Your task to perform on an android device: open a bookmark in the chrome app Image 0: 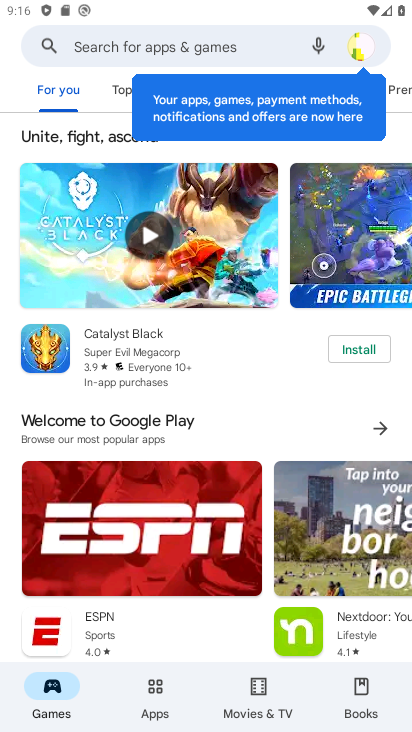
Step 0: press home button
Your task to perform on an android device: open a bookmark in the chrome app Image 1: 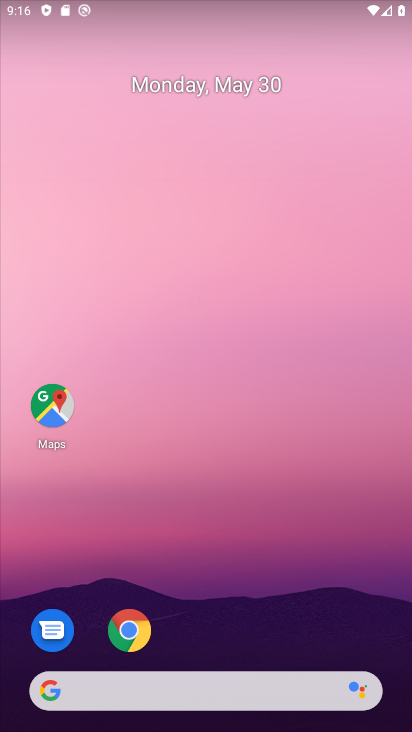
Step 1: click (146, 634)
Your task to perform on an android device: open a bookmark in the chrome app Image 2: 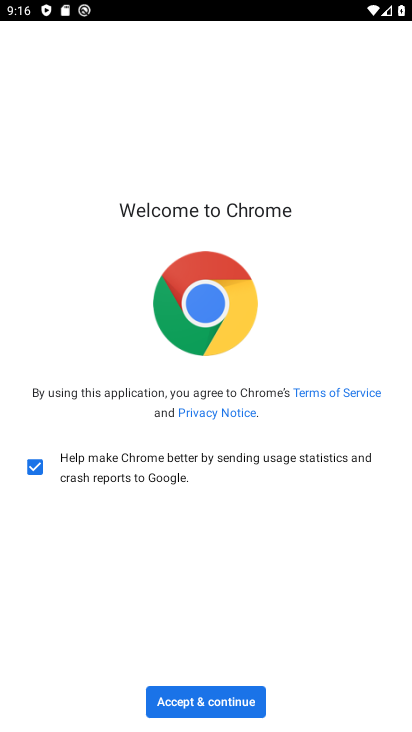
Step 2: click (240, 708)
Your task to perform on an android device: open a bookmark in the chrome app Image 3: 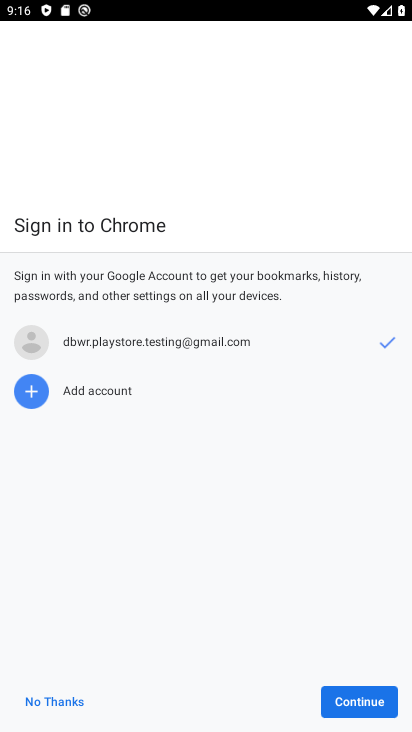
Step 3: click (347, 697)
Your task to perform on an android device: open a bookmark in the chrome app Image 4: 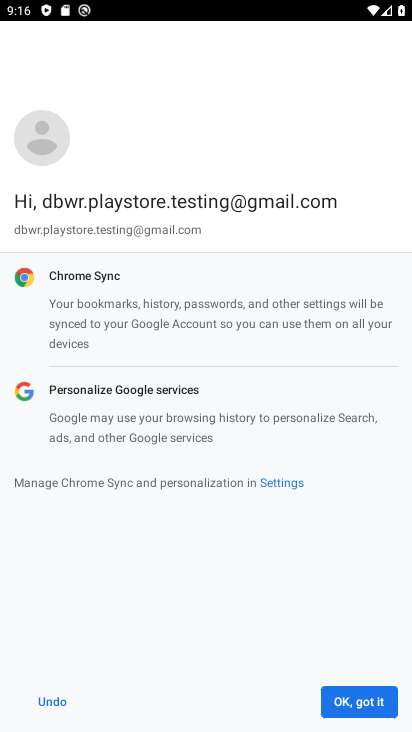
Step 4: click (377, 691)
Your task to perform on an android device: open a bookmark in the chrome app Image 5: 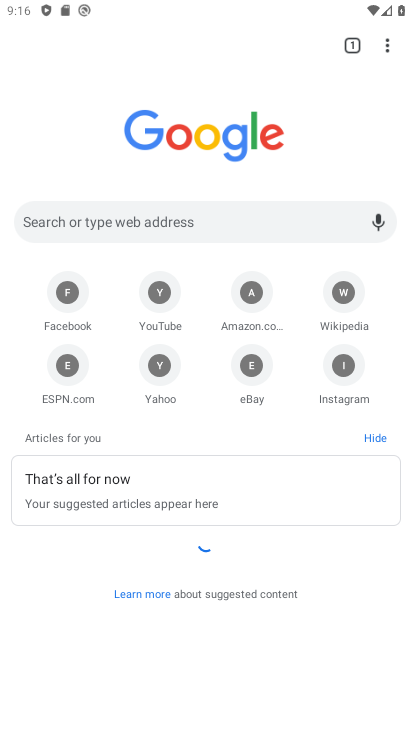
Step 5: task complete